Your task to perform on an android device: show emergency info Image 0: 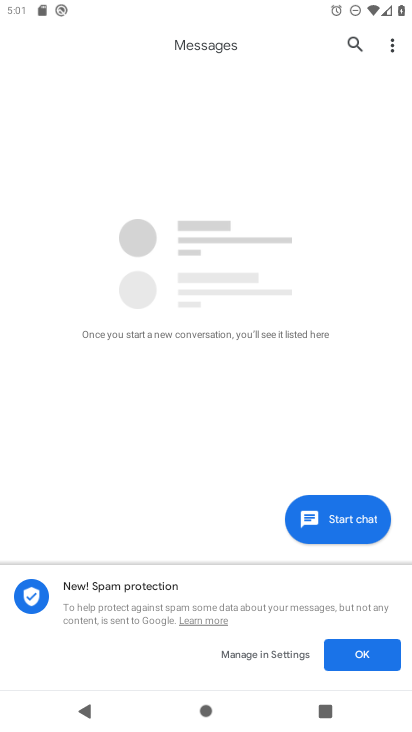
Step 0: press home button
Your task to perform on an android device: show emergency info Image 1: 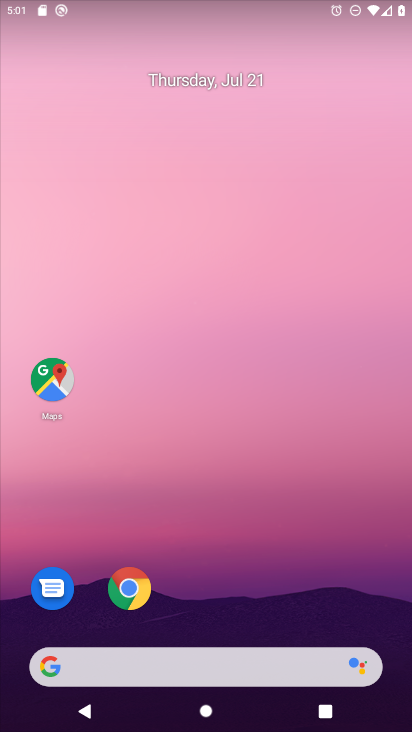
Step 1: drag from (383, 605) to (274, 243)
Your task to perform on an android device: show emergency info Image 2: 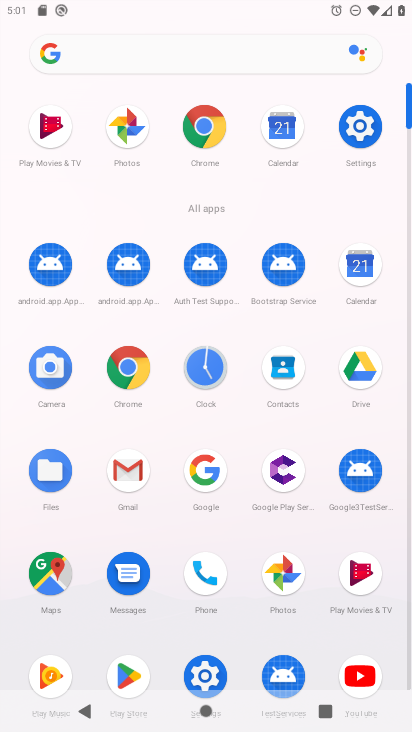
Step 2: click (362, 125)
Your task to perform on an android device: show emergency info Image 3: 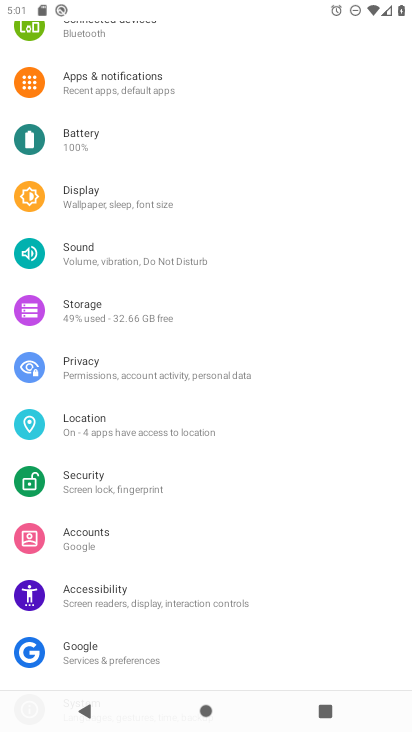
Step 3: drag from (156, 648) to (149, 336)
Your task to perform on an android device: show emergency info Image 4: 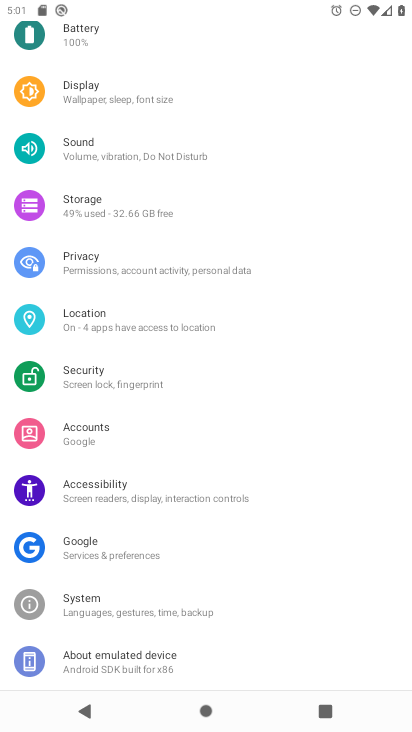
Step 4: click (159, 670)
Your task to perform on an android device: show emergency info Image 5: 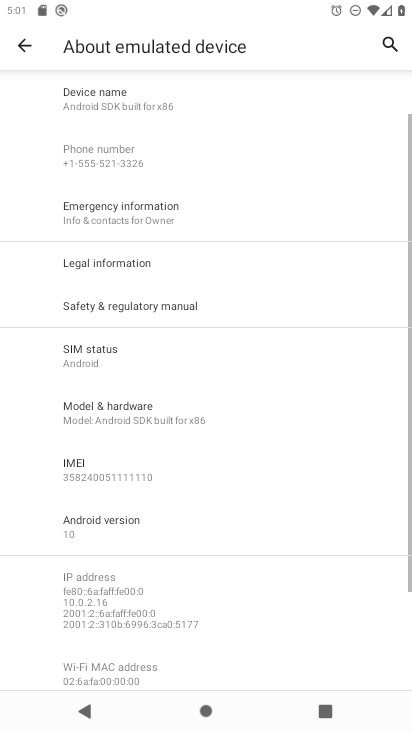
Step 5: click (218, 208)
Your task to perform on an android device: show emergency info Image 6: 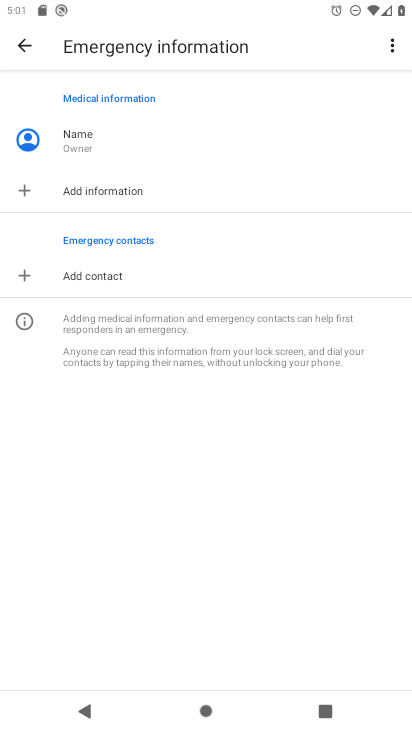
Step 6: task complete